Your task to perform on an android device: Go to settings Image 0: 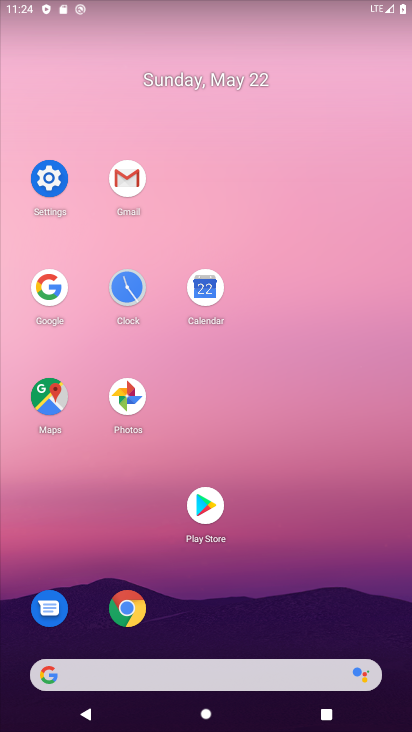
Step 0: click (57, 189)
Your task to perform on an android device: Go to settings Image 1: 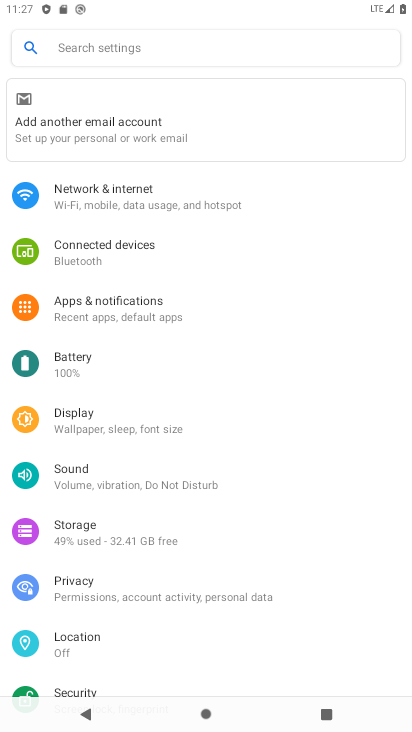
Step 1: task complete